Your task to perform on an android device: toggle pop-ups in chrome Image 0: 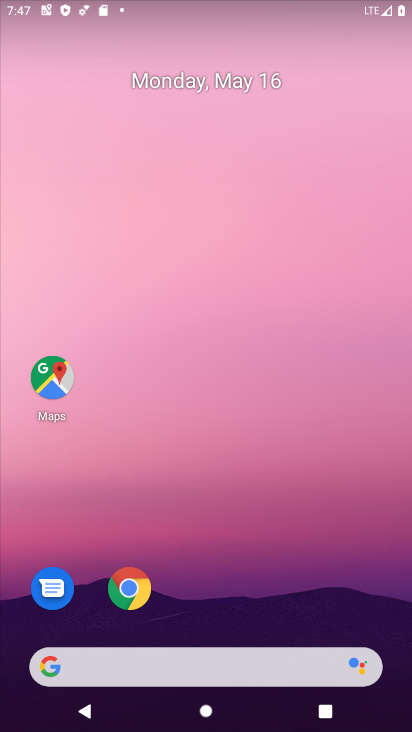
Step 0: drag from (235, 544) to (143, 22)
Your task to perform on an android device: toggle pop-ups in chrome Image 1: 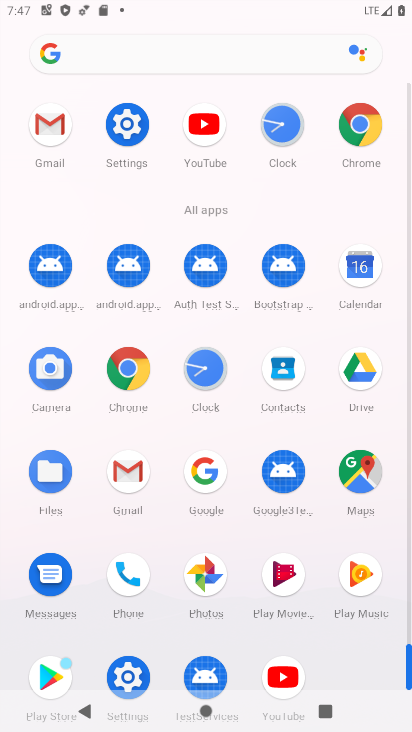
Step 1: drag from (13, 541) to (14, 321)
Your task to perform on an android device: toggle pop-ups in chrome Image 2: 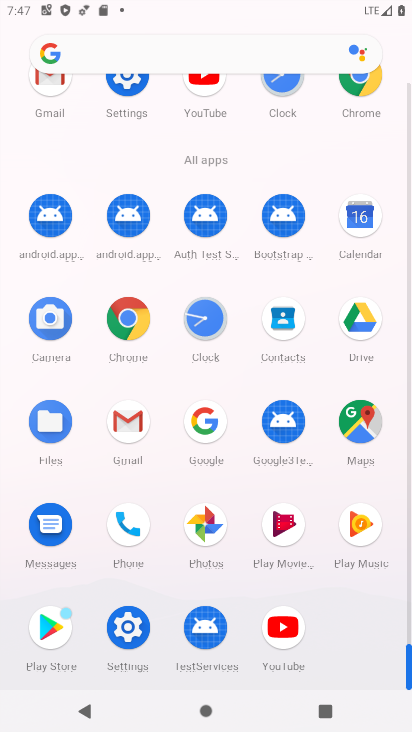
Step 2: click (123, 314)
Your task to perform on an android device: toggle pop-ups in chrome Image 3: 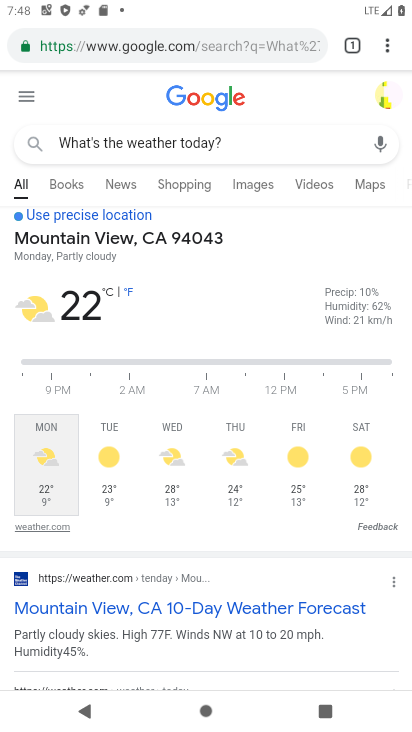
Step 3: drag from (388, 48) to (239, 506)
Your task to perform on an android device: toggle pop-ups in chrome Image 4: 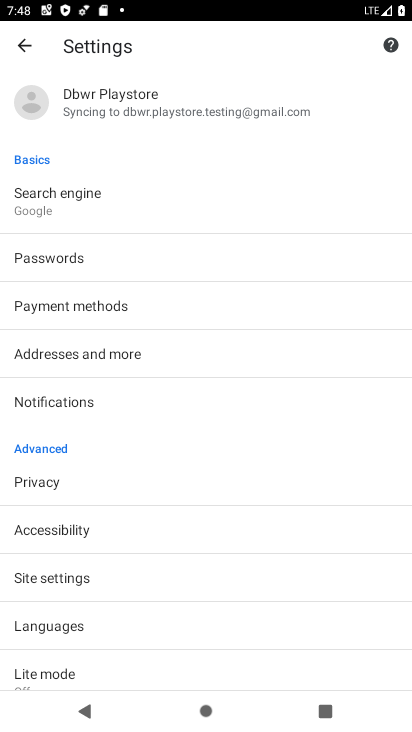
Step 4: drag from (195, 568) to (205, 280)
Your task to perform on an android device: toggle pop-ups in chrome Image 5: 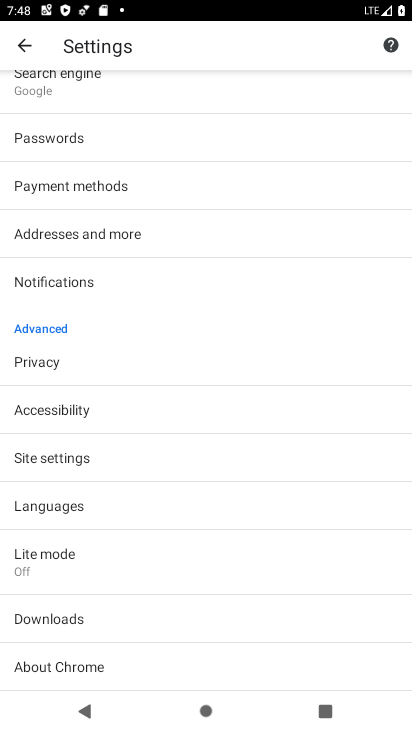
Step 5: click (93, 458)
Your task to perform on an android device: toggle pop-ups in chrome Image 6: 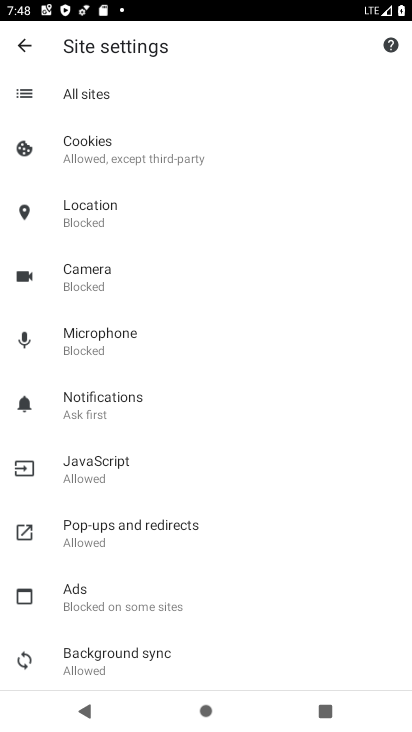
Step 6: click (121, 529)
Your task to perform on an android device: toggle pop-ups in chrome Image 7: 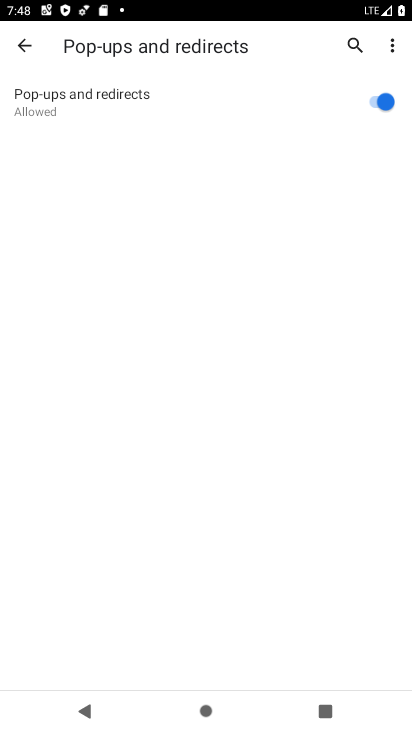
Step 7: click (370, 96)
Your task to perform on an android device: toggle pop-ups in chrome Image 8: 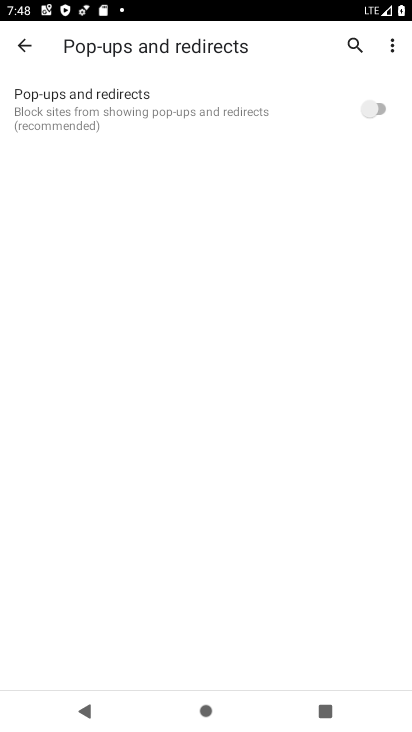
Step 8: task complete